Your task to perform on an android device: snooze an email in the gmail app Image 0: 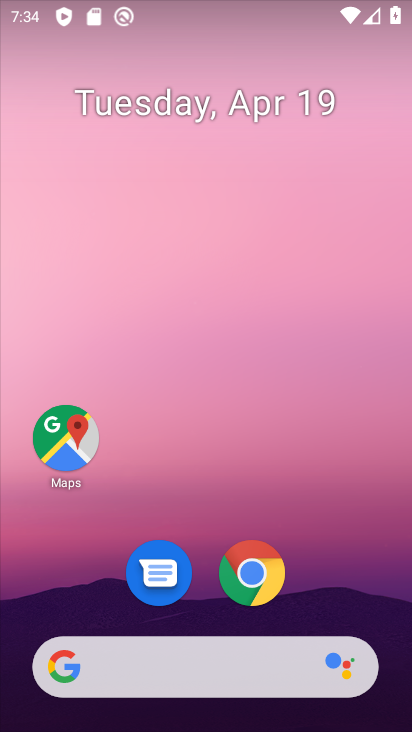
Step 0: drag from (185, 687) to (244, 181)
Your task to perform on an android device: snooze an email in the gmail app Image 1: 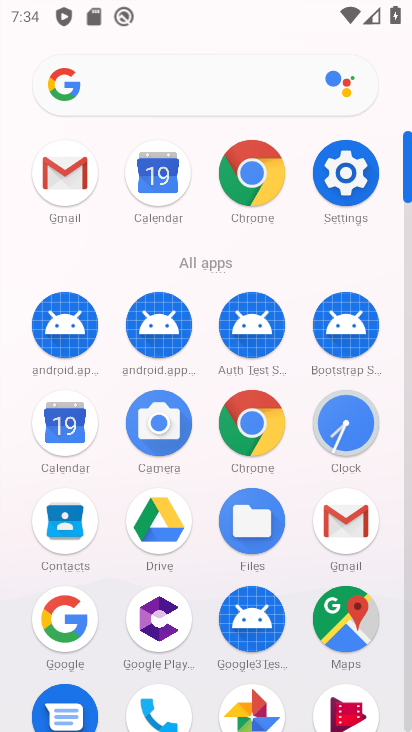
Step 1: click (77, 200)
Your task to perform on an android device: snooze an email in the gmail app Image 2: 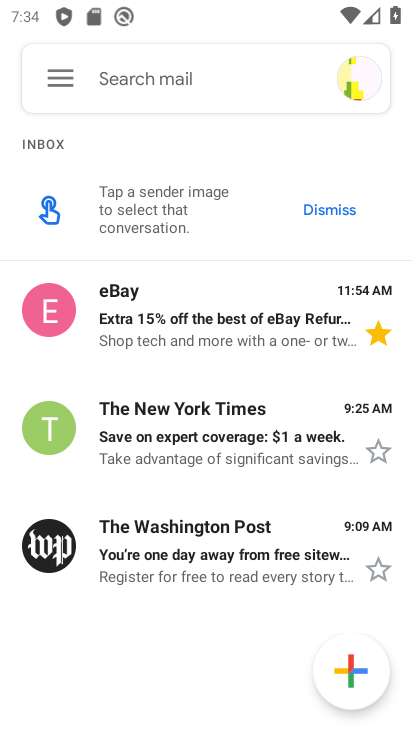
Step 2: click (317, 212)
Your task to perform on an android device: snooze an email in the gmail app Image 3: 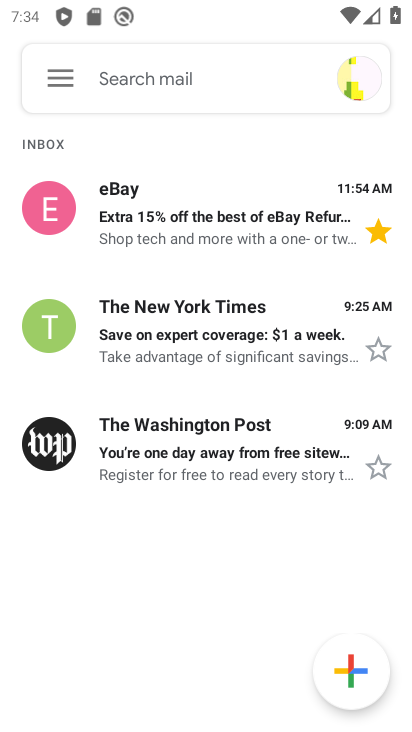
Step 3: click (52, 78)
Your task to perform on an android device: snooze an email in the gmail app Image 4: 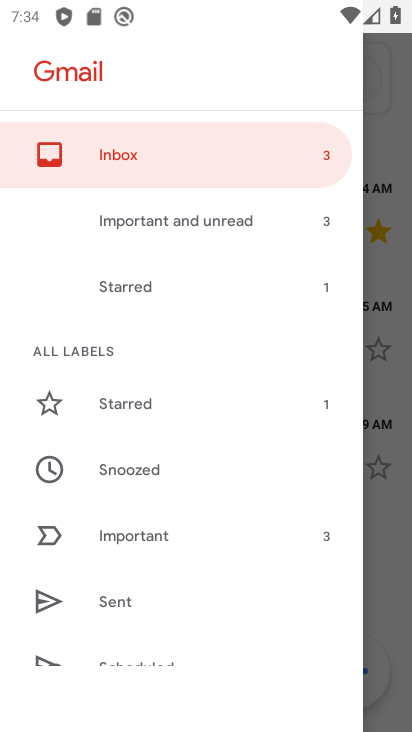
Step 4: click (106, 467)
Your task to perform on an android device: snooze an email in the gmail app Image 5: 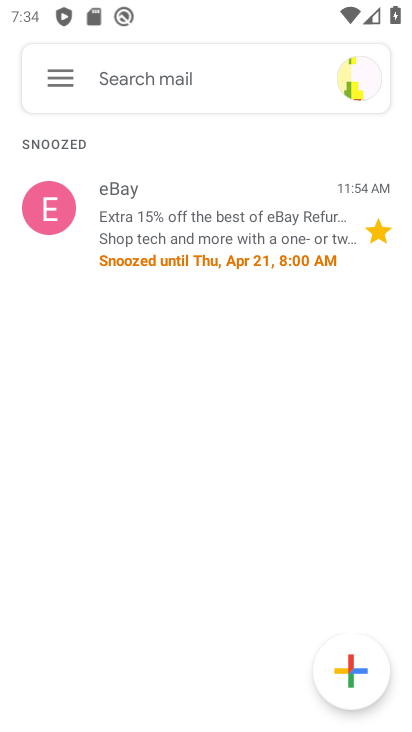
Step 5: task complete